Your task to perform on an android device: check battery use Image 0: 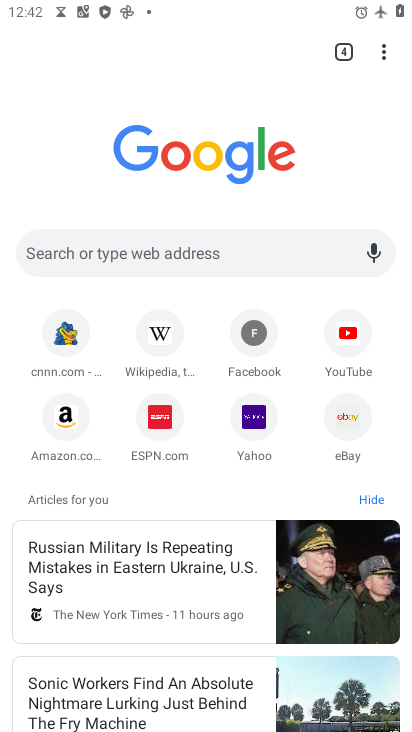
Step 0: press home button
Your task to perform on an android device: check battery use Image 1: 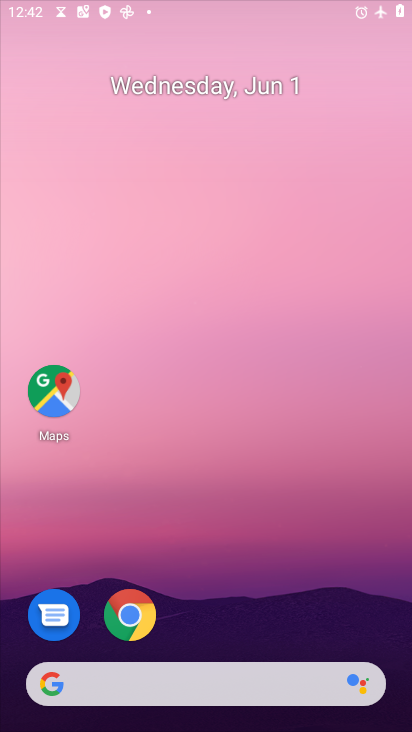
Step 1: drag from (260, 543) to (214, 8)
Your task to perform on an android device: check battery use Image 2: 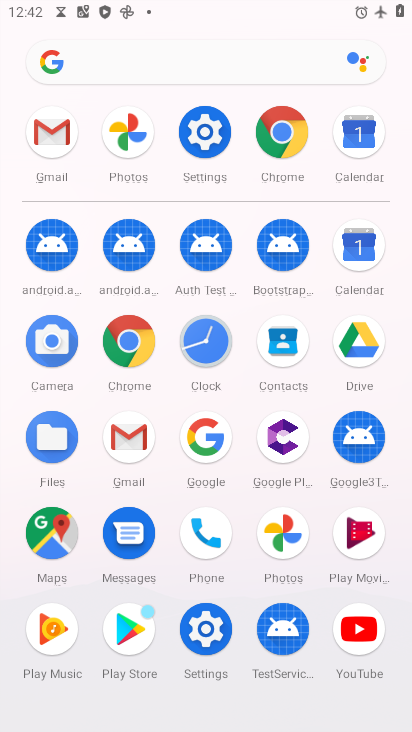
Step 2: click (219, 134)
Your task to perform on an android device: check battery use Image 3: 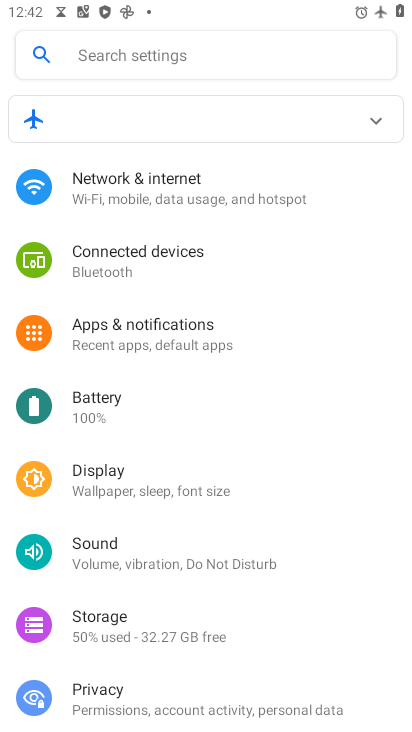
Step 3: click (154, 420)
Your task to perform on an android device: check battery use Image 4: 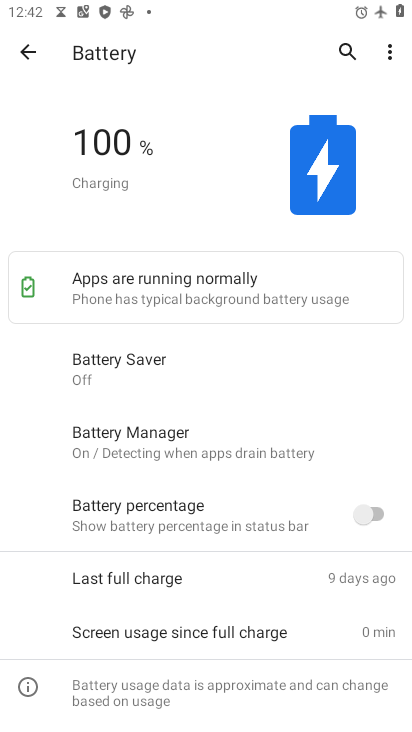
Step 4: task complete